Your task to perform on an android device: Open sound settings Image 0: 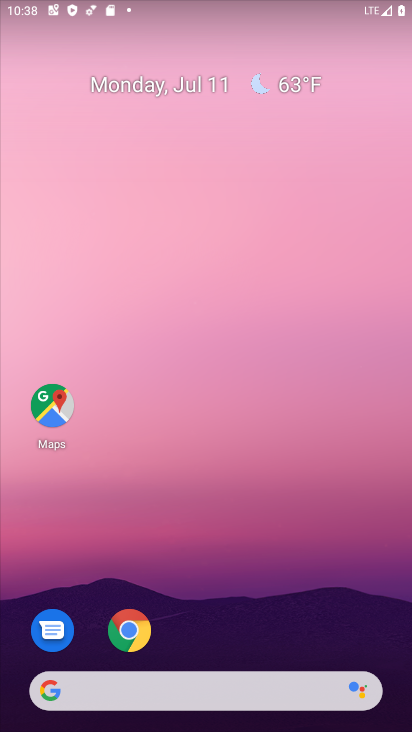
Step 0: drag from (362, 623) to (344, 132)
Your task to perform on an android device: Open sound settings Image 1: 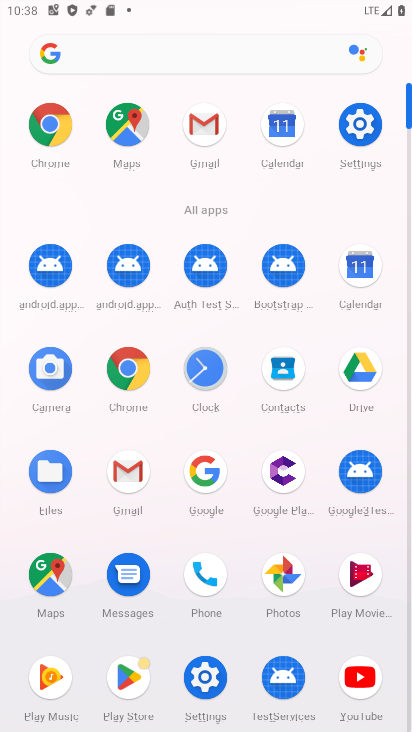
Step 1: click (203, 679)
Your task to perform on an android device: Open sound settings Image 2: 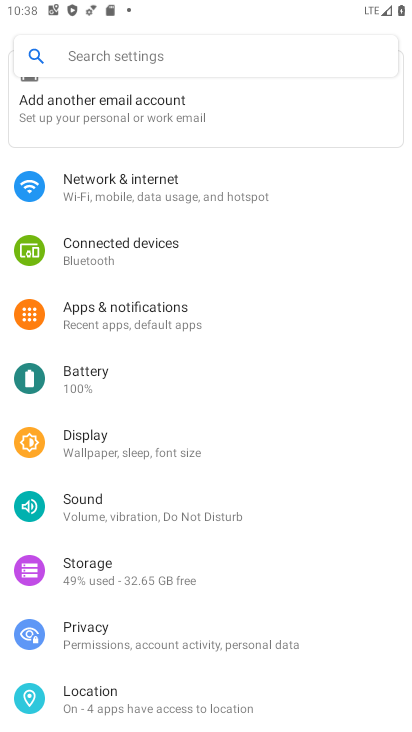
Step 2: click (108, 504)
Your task to perform on an android device: Open sound settings Image 3: 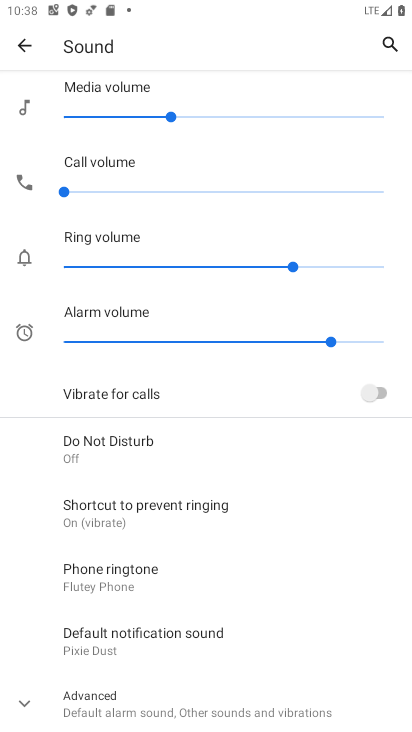
Step 3: click (27, 698)
Your task to perform on an android device: Open sound settings Image 4: 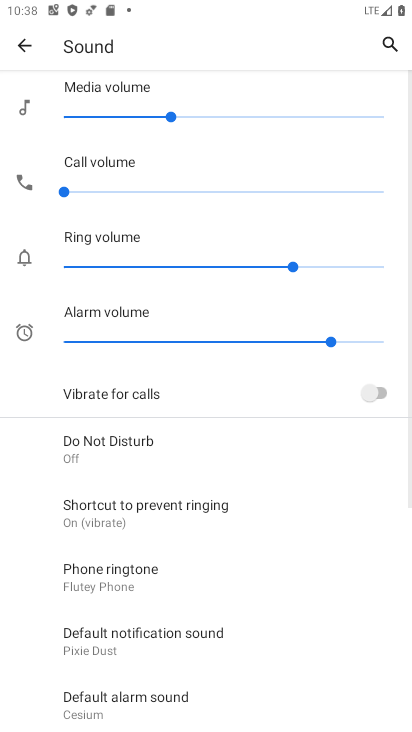
Step 4: task complete